Your task to perform on an android device: Show me the alarms in the clock app Image 0: 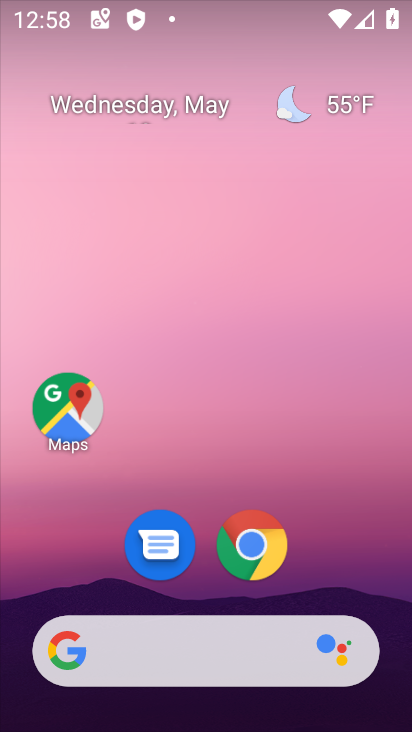
Step 0: drag from (354, 567) to (319, 23)
Your task to perform on an android device: Show me the alarms in the clock app Image 1: 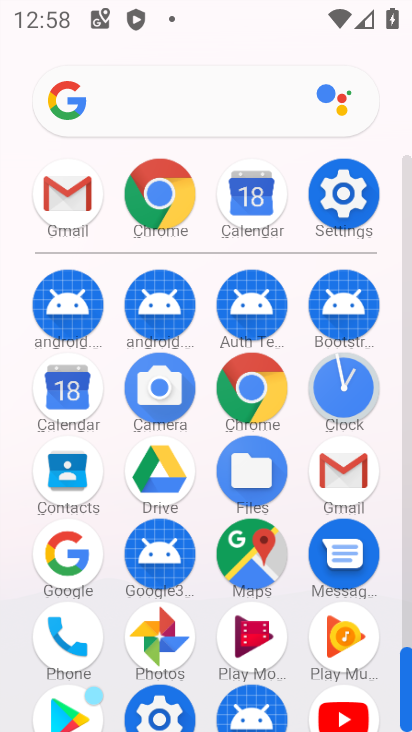
Step 1: click (346, 401)
Your task to perform on an android device: Show me the alarms in the clock app Image 2: 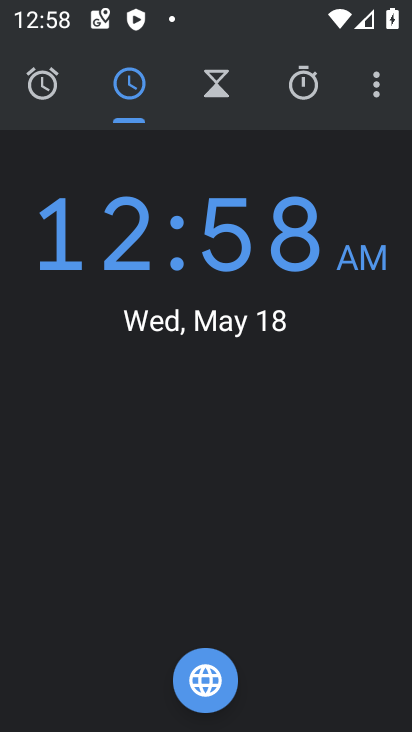
Step 2: click (56, 104)
Your task to perform on an android device: Show me the alarms in the clock app Image 3: 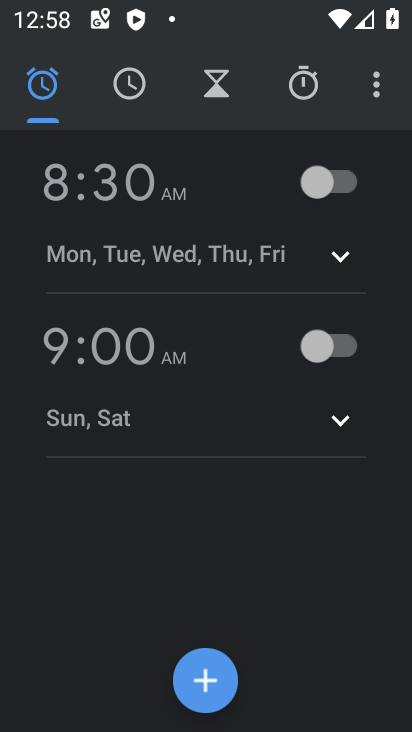
Step 3: task complete